Your task to perform on an android device: uninstall "Microsoft Excel" Image 0: 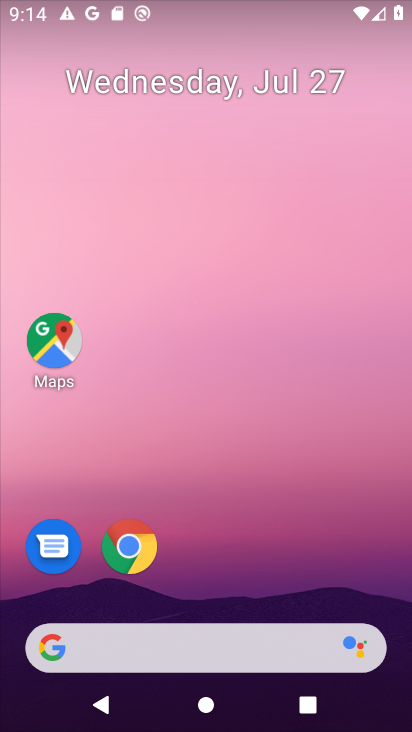
Step 0: drag from (247, 550) to (173, 135)
Your task to perform on an android device: uninstall "Microsoft Excel" Image 1: 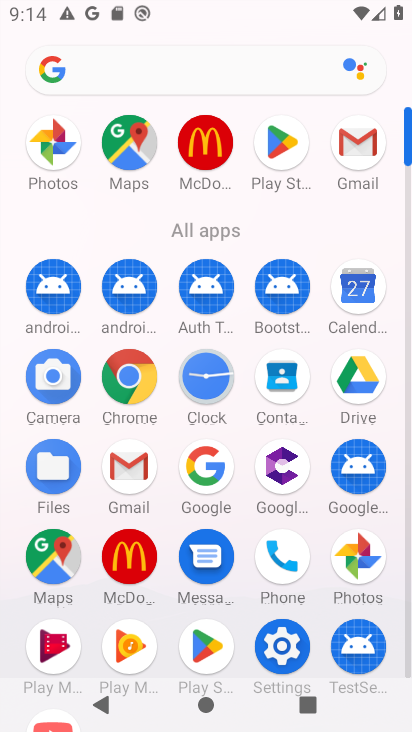
Step 1: click (279, 147)
Your task to perform on an android device: uninstall "Microsoft Excel" Image 2: 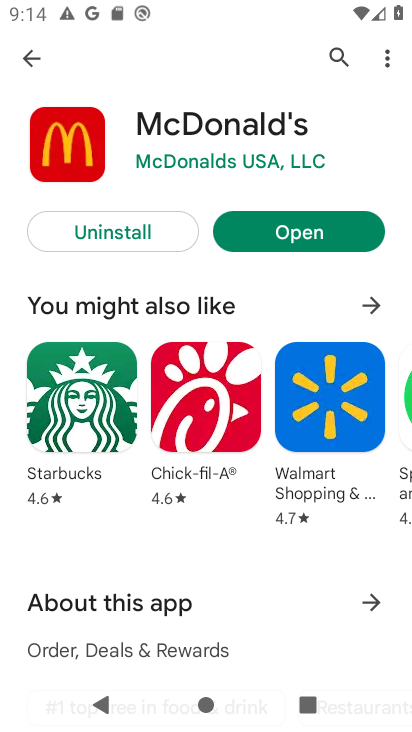
Step 2: click (342, 53)
Your task to perform on an android device: uninstall "Microsoft Excel" Image 3: 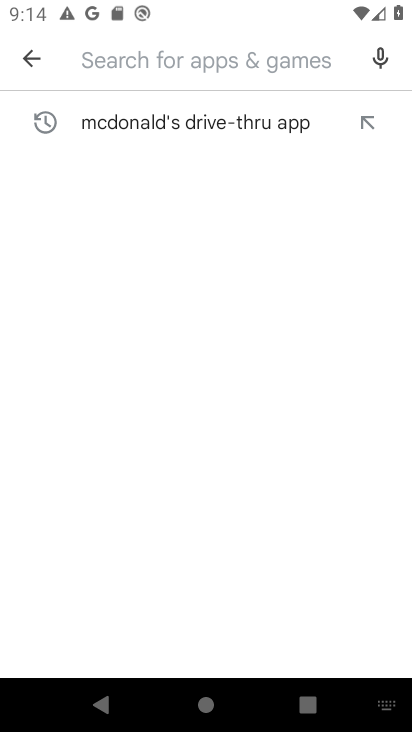
Step 3: type "Microsoft Excel"
Your task to perform on an android device: uninstall "Microsoft Excel" Image 4: 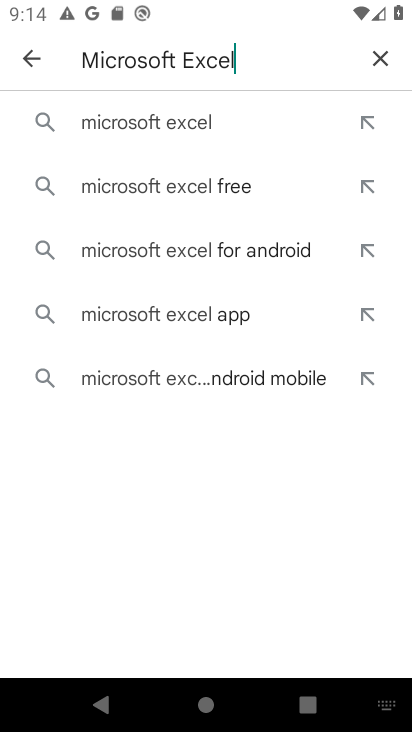
Step 4: click (219, 120)
Your task to perform on an android device: uninstall "Microsoft Excel" Image 5: 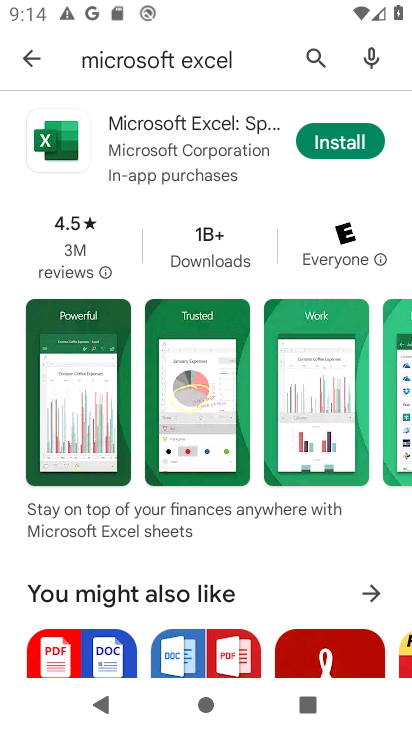
Step 5: task complete